Your task to perform on an android device: check storage Image 0: 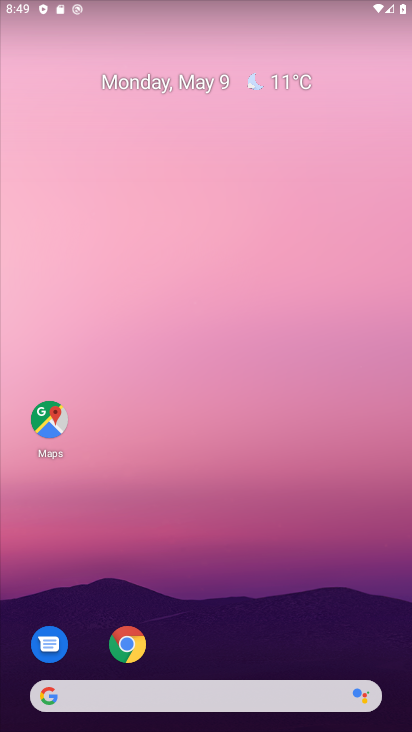
Step 0: drag from (251, 660) to (226, 120)
Your task to perform on an android device: check storage Image 1: 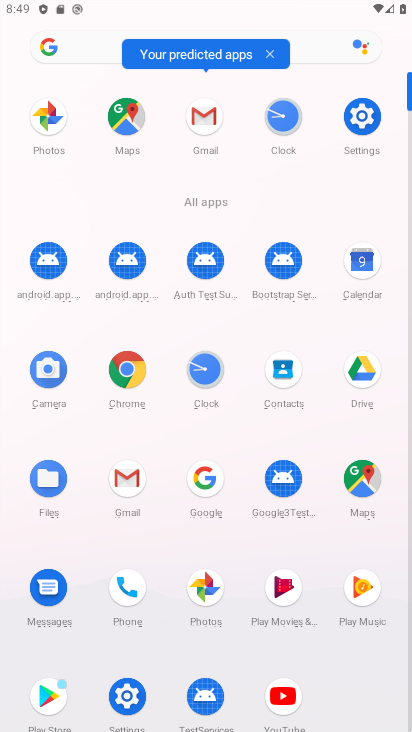
Step 1: click (121, 707)
Your task to perform on an android device: check storage Image 2: 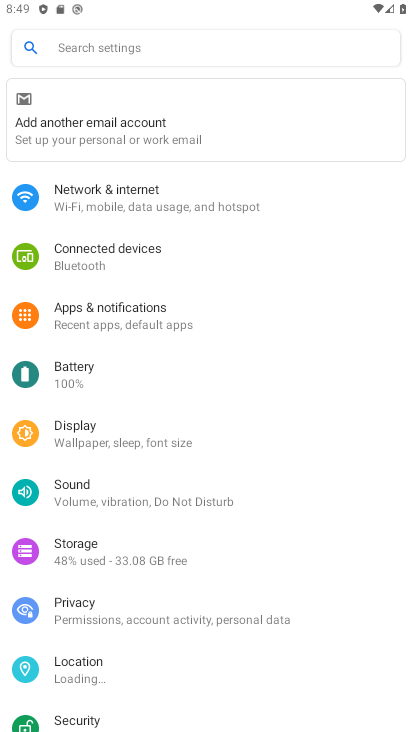
Step 2: click (67, 550)
Your task to perform on an android device: check storage Image 3: 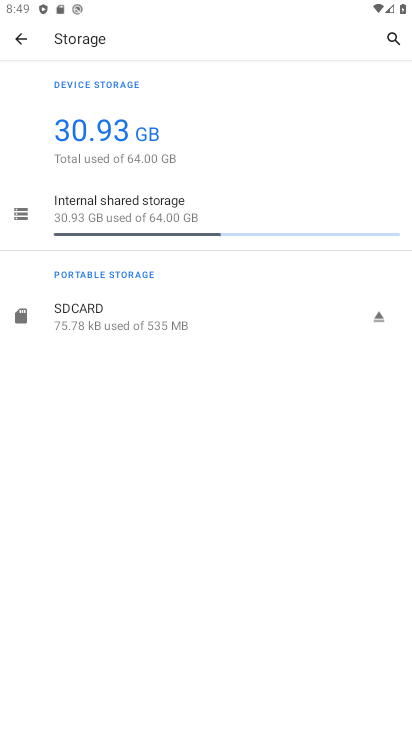
Step 3: click (188, 222)
Your task to perform on an android device: check storage Image 4: 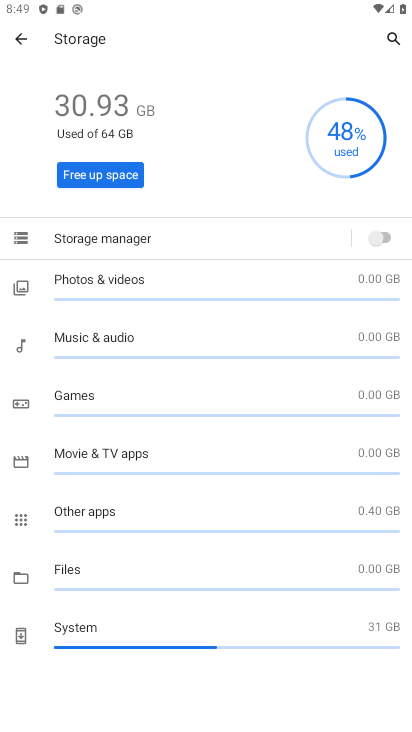
Step 4: task complete